Your task to perform on an android device: Open display settings Image 0: 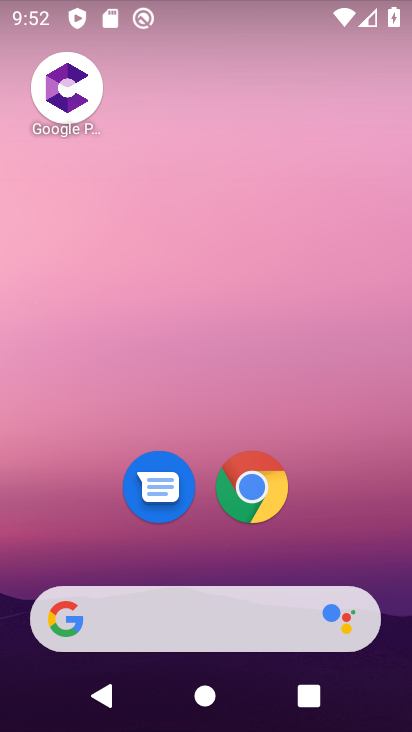
Step 0: drag from (395, 717) to (361, 207)
Your task to perform on an android device: Open display settings Image 1: 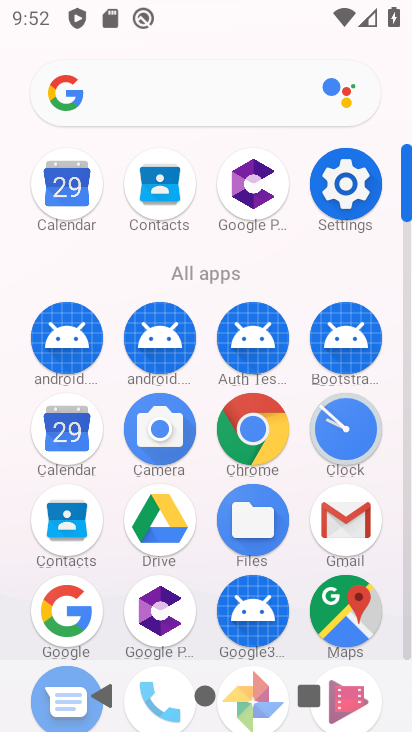
Step 1: click (346, 193)
Your task to perform on an android device: Open display settings Image 2: 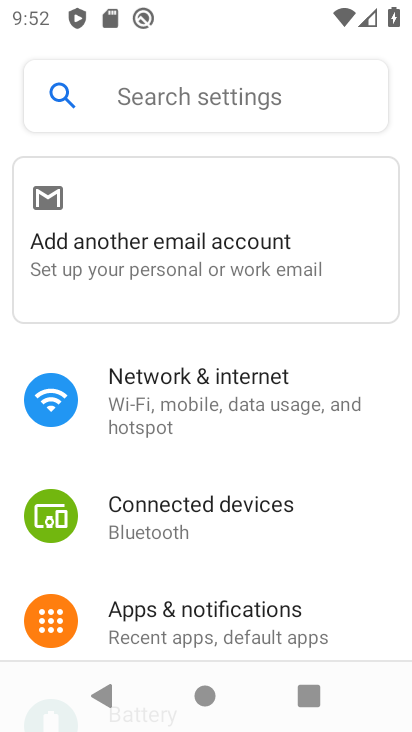
Step 2: drag from (365, 631) to (351, 323)
Your task to perform on an android device: Open display settings Image 3: 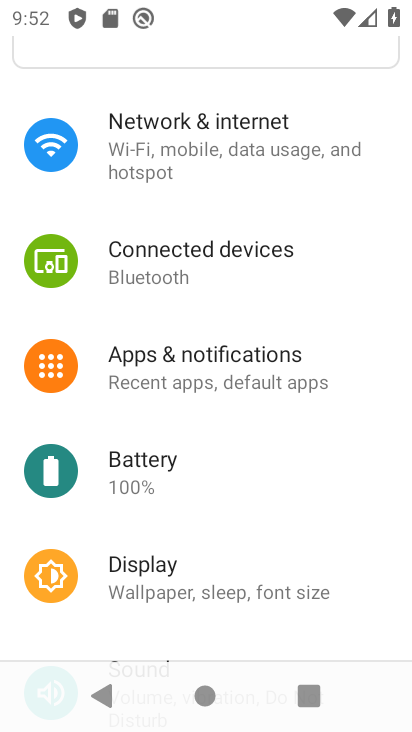
Step 3: drag from (364, 626) to (352, 301)
Your task to perform on an android device: Open display settings Image 4: 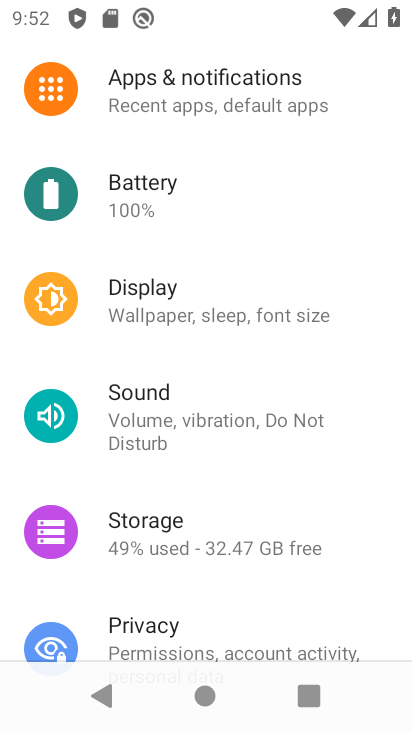
Step 4: drag from (370, 631) to (358, 305)
Your task to perform on an android device: Open display settings Image 5: 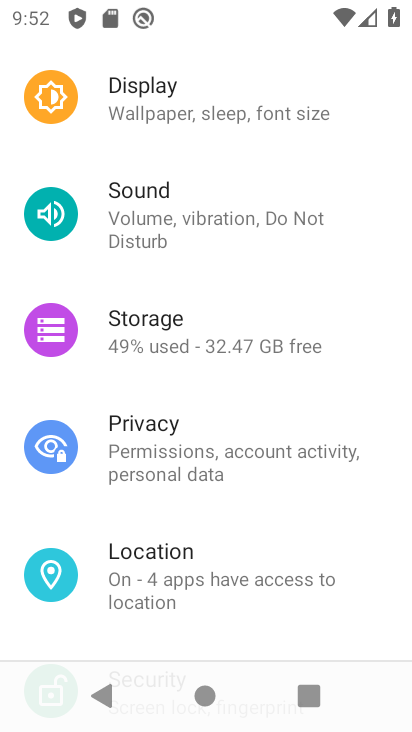
Step 5: drag from (362, 634) to (350, 275)
Your task to perform on an android device: Open display settings Image 6: 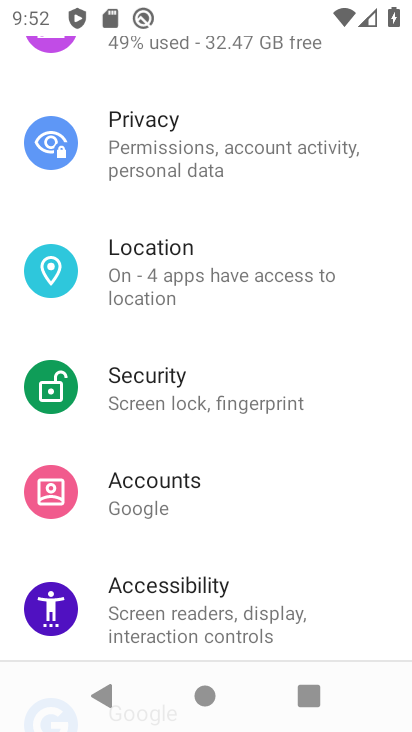
Step 6: drag from (236, 125) to (297, 597)
Your task to perform on an android device: Open display settings Image 7: 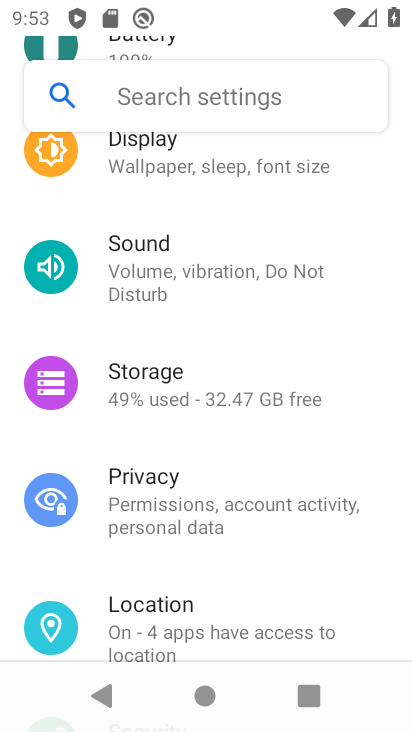
Step 7: click (200, 162)
Your task to perform on an android device: Open display settings Image 8: 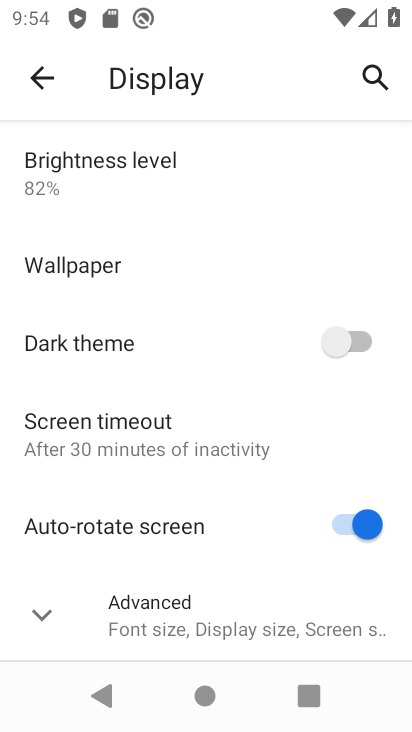
Step 8: task complete